Your task to perform on an android device: What is the news today? Image 0: 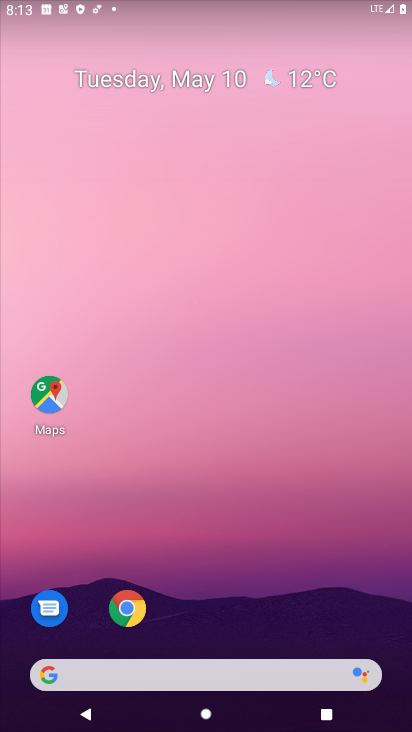
Step 0: press home button
Your task to perform on an android device: What is the news today? Image 1: 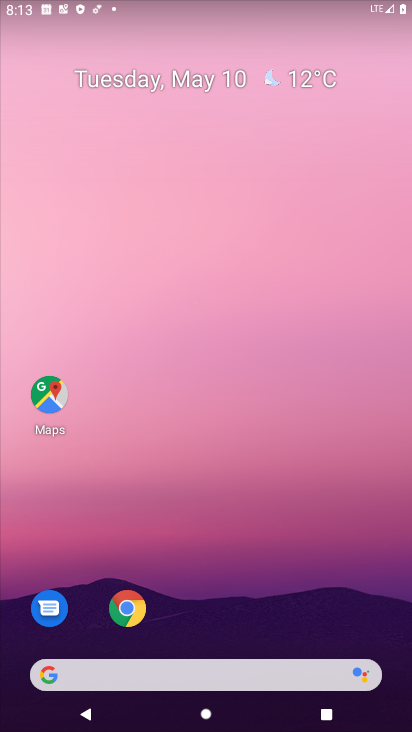
Step 1: click (48, 674)
Your task to perform on an android device: What is the news today? Image 2: 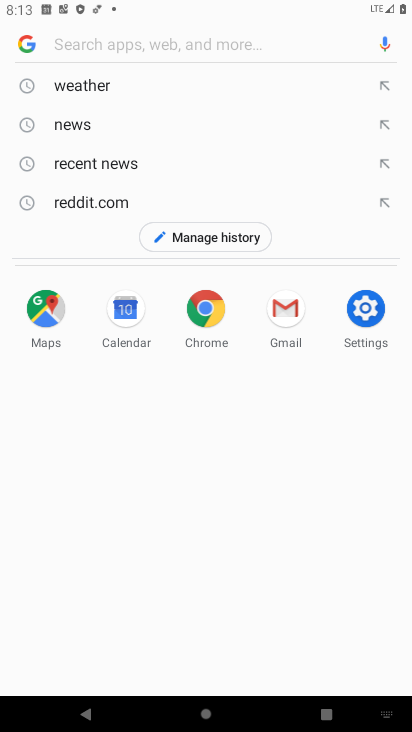
Step 2: click (148, 125)
Your task to perform on an android device: What is the news today? Image 3: 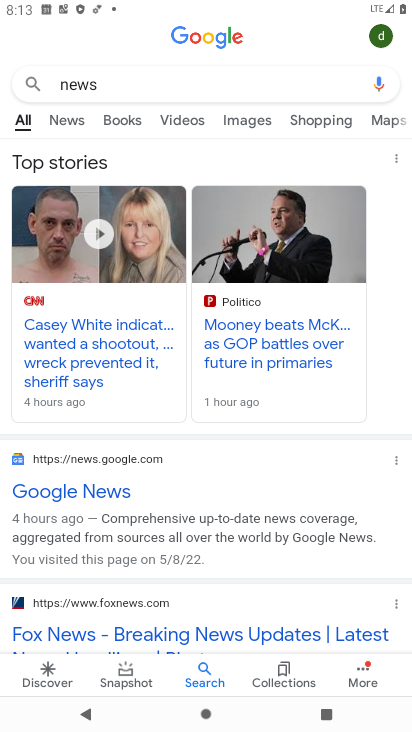
Step 3: click (74, 117)
Your task to perform on an android device: What is the news today? Image 4: 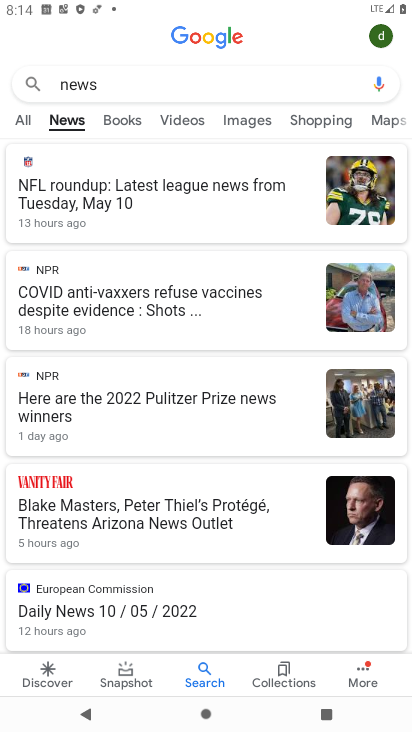
Step 4: task complete